Your task to perform on an android device: turn off location Image 0: 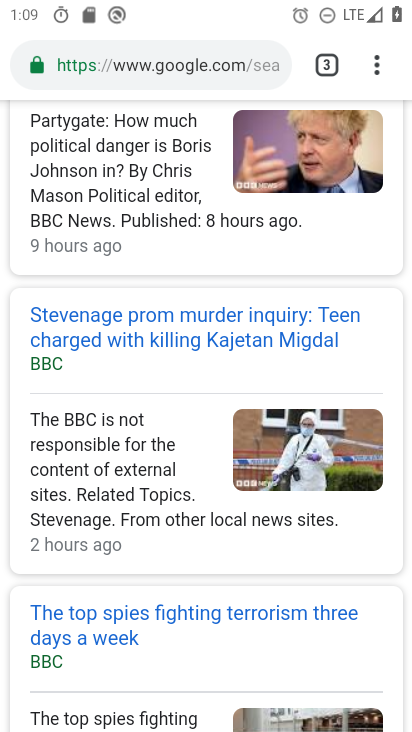
Step 0: press home button
Your task to perform on an android device: turn off location Image 1: 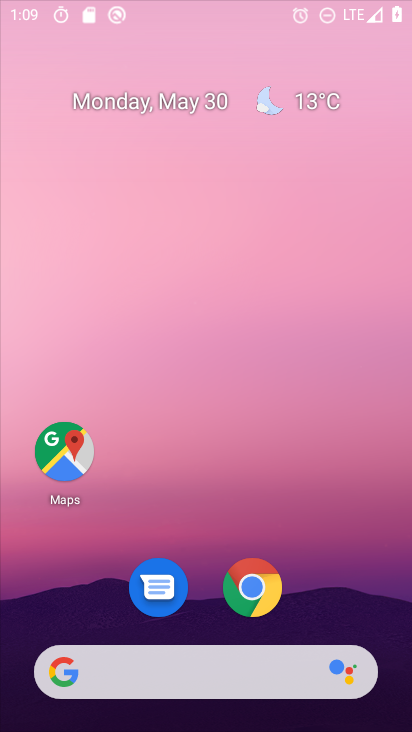
Step 1: drag from (382, 618) to (264, 138)
Your task to perform on an android device: turn off location Image 2: 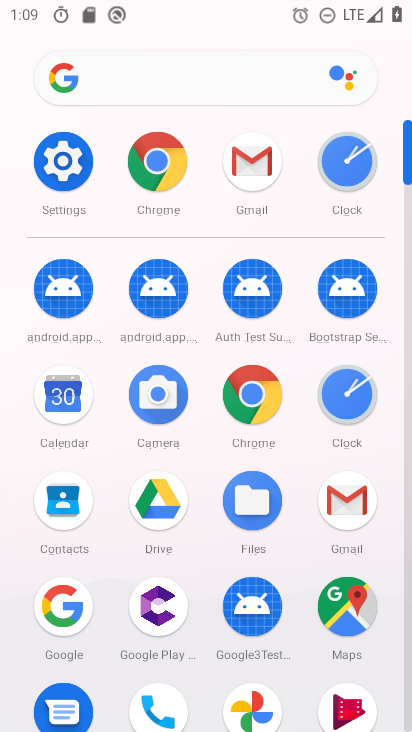
Step 2: click (51, 161)
Your task to perform on an android device: turn off location Image 3: 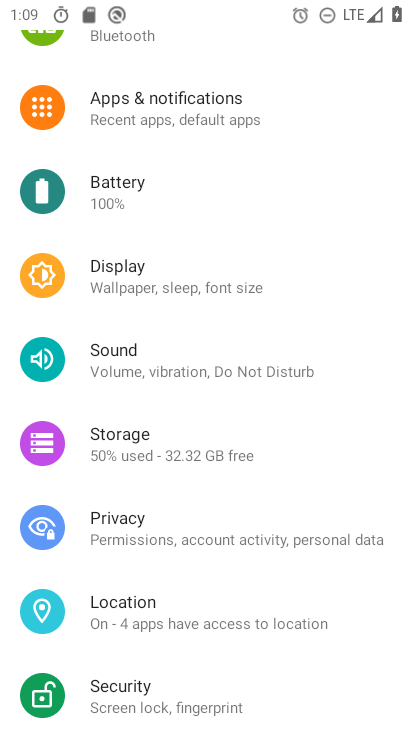
Step 3: click (178, 602)
Your task to perform on an android device: turn off location Image 4: 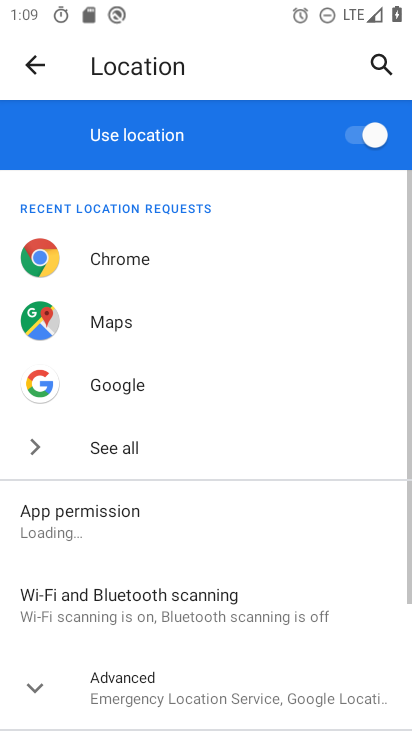
Step 4: click (362, 135)
Your task to perform on an android device: turn off location Image 5: 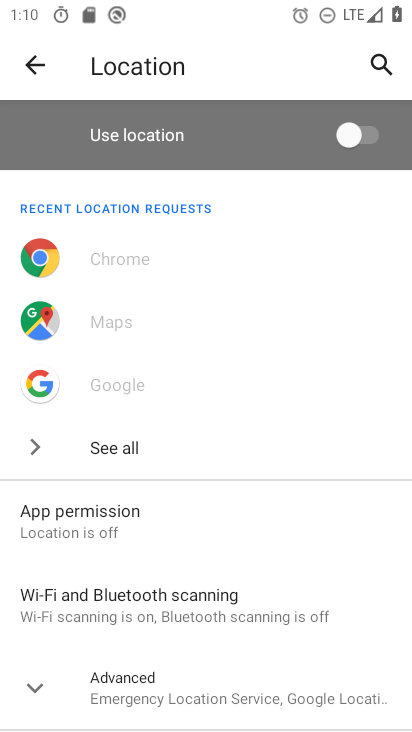
Step 5: task complete